Your task to perform on an android device: set the stopwatch Image 0: 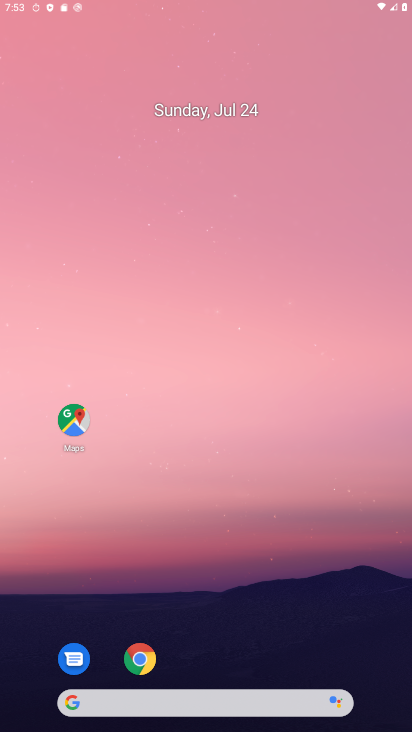
Step 0: click (297, 245)
Your task to perform on an android device: set the stopwatch Image 1: 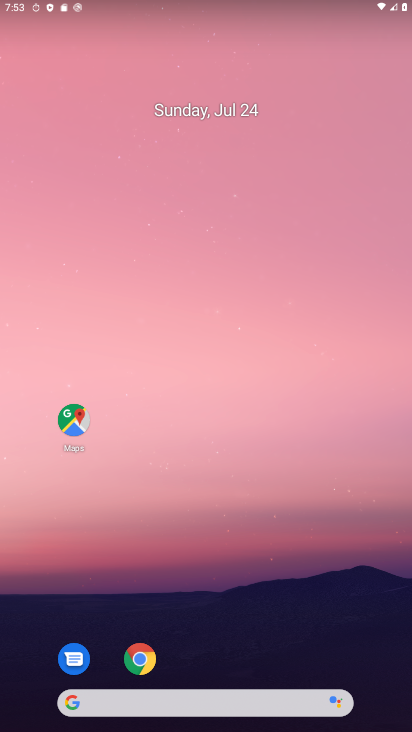
Step 1: drag from (236, 592) to (246, 125)
Your task to perform on an android device: set the stopwatch Image 2: 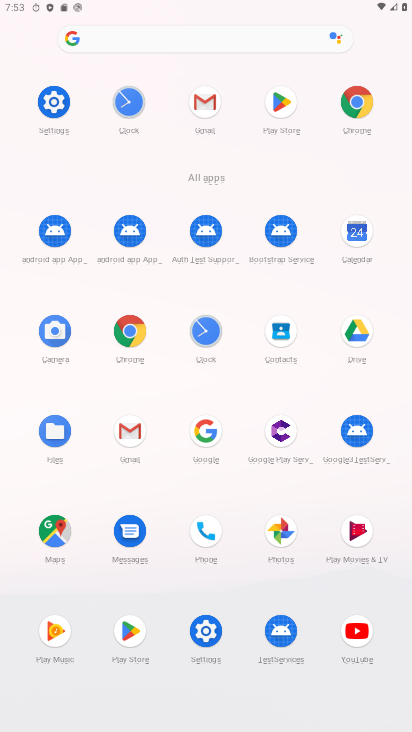
Step 2: click (129, 98)
Your task to perform on an android device: set the stopwatch Image 3: 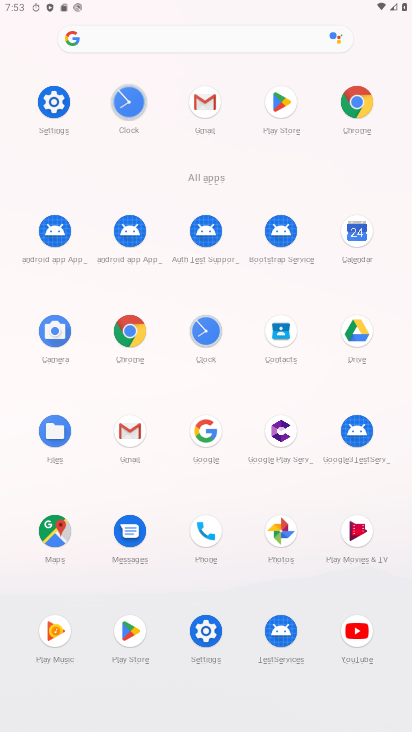
Step 3: click (129, 98)
Your task to perform on an android device: set the stopwatch Image 4: 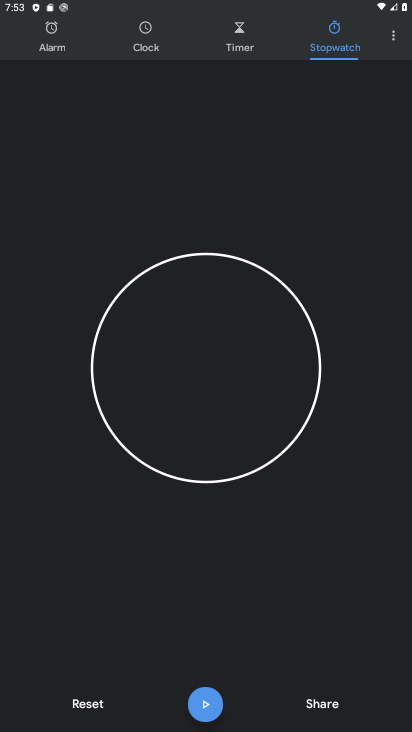
Step 4: click (201, 709)
Your task to perform on an android device: set the stopwatch Image 5: 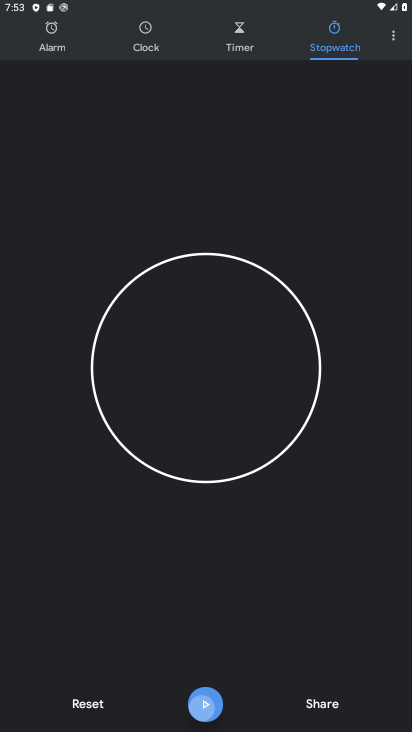
Step 5: click (201, 709)
Your task to perform on an android device: set the stopwatch Image 6: 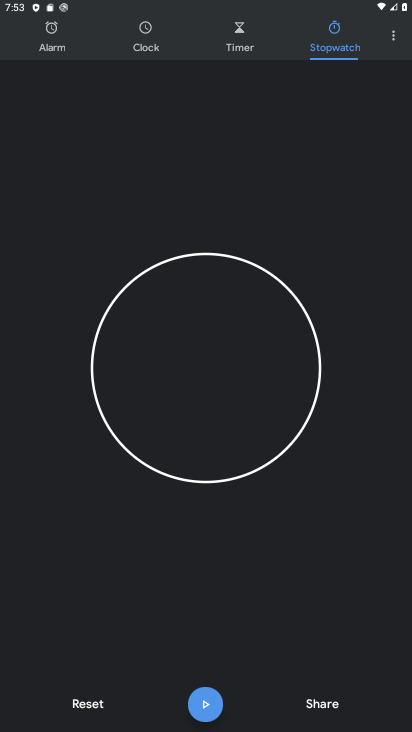
Step 6: click (203, 711)
Your task to perform on an android device: set the stopwatch Image 7: 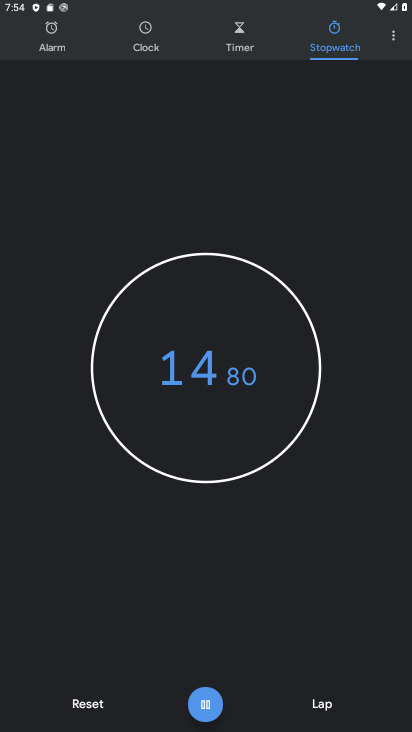
Step 7: click (205, 702)
Your task to perform on an android device: set the stopwatch Image 8: 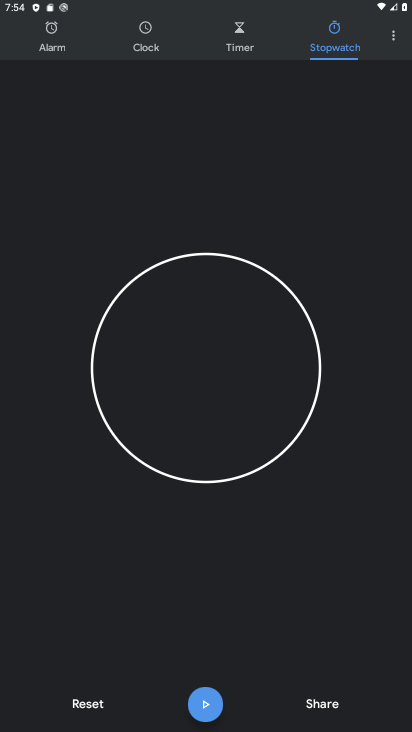
Step 8: task complete